Your task to perform on an android device: What's on my calendar tomorrow? Image 0: 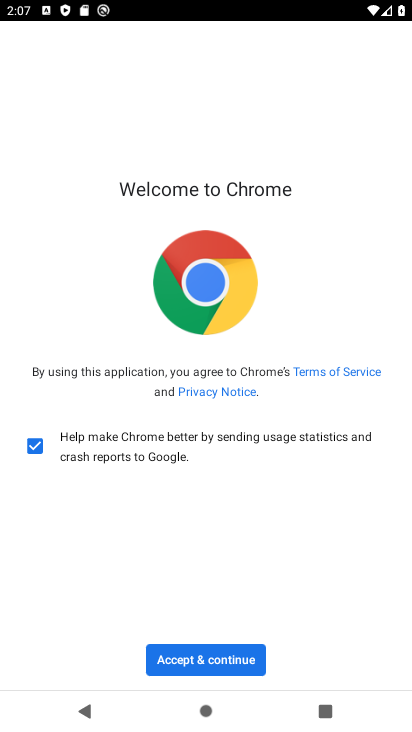
Step 0: click (231, 646)
Your task to perform on an android device: What's on my calendar tomorrow? Image 1: 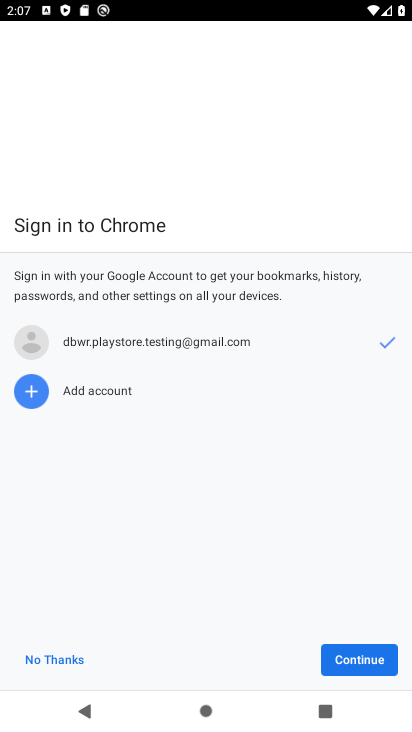
Step 1: click (340, 659)
Your task to perform on an android device: What's on my calendar tomorrow? Image 2: 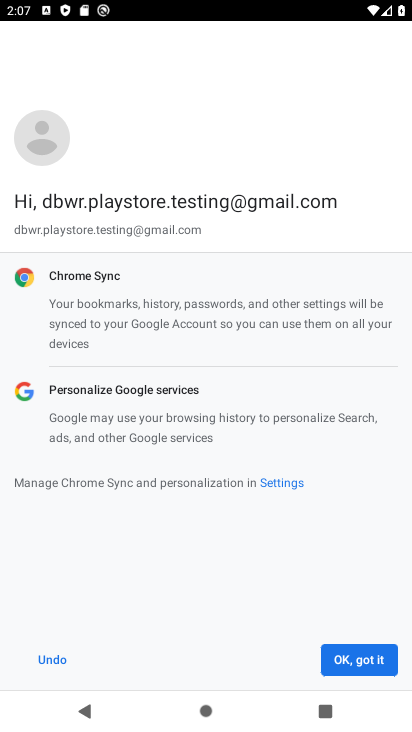
Step 2: click (340, 659)
Your task to perform on an android device: What's on my calendar tomorrow? Image 3: 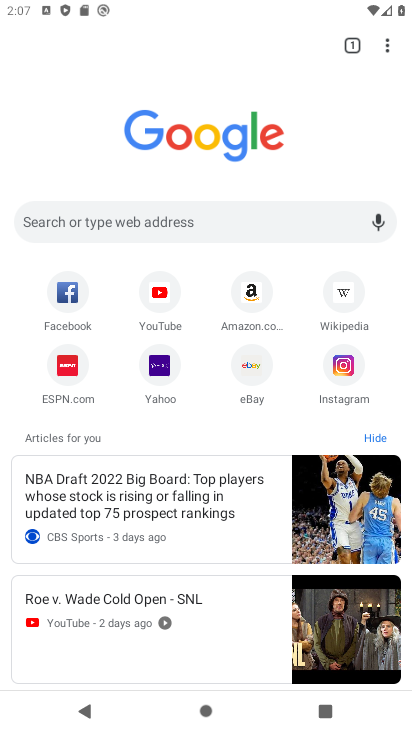
Step 3: press home button
Your task to perform on an android device: What's on my calendar tomorrow? Image 4: 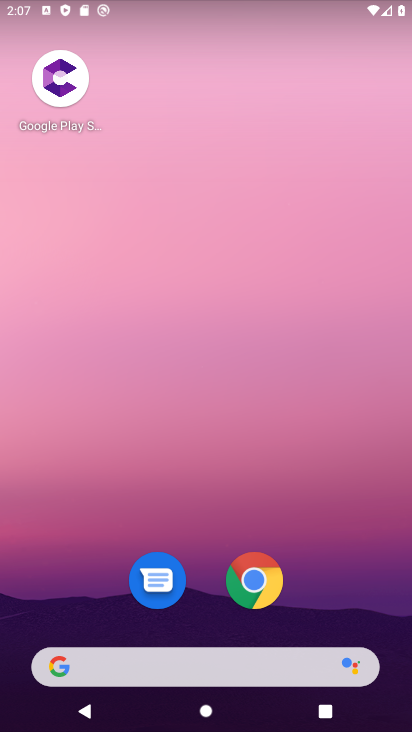
Step 4: drag from (327, 577) to (290, 96)
Your task to perform on an android device: What's on my calendar tomorrow? Image 5: 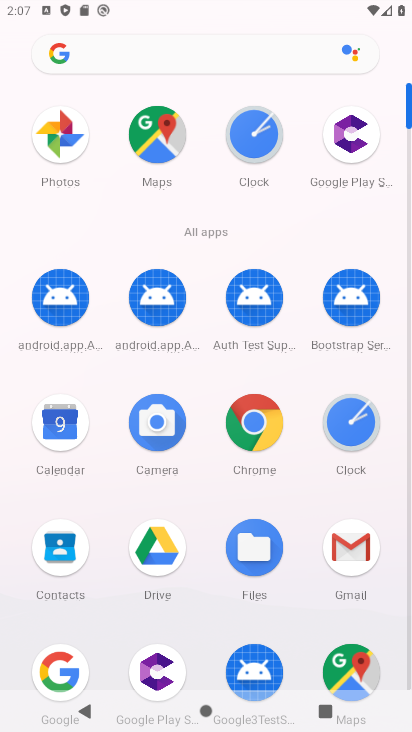
Step 5: click (60, 427)
Your task to perform on an android device: What's on my calendar tomorrow? Image 6: 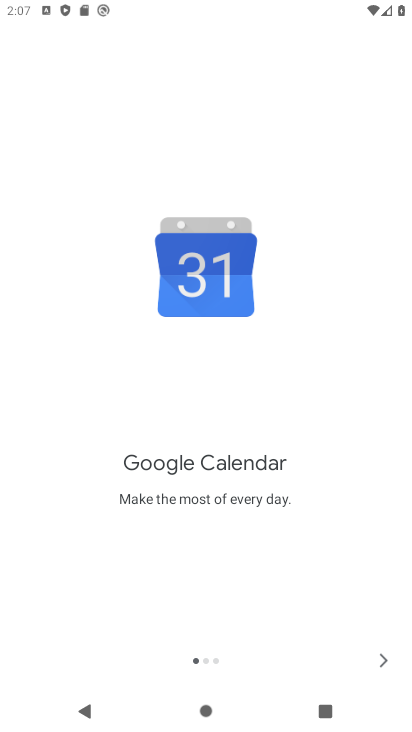
Step 6: click (385, 658)
Your task to perform on an android device: What's on my calendar tomorrow? Image 7: 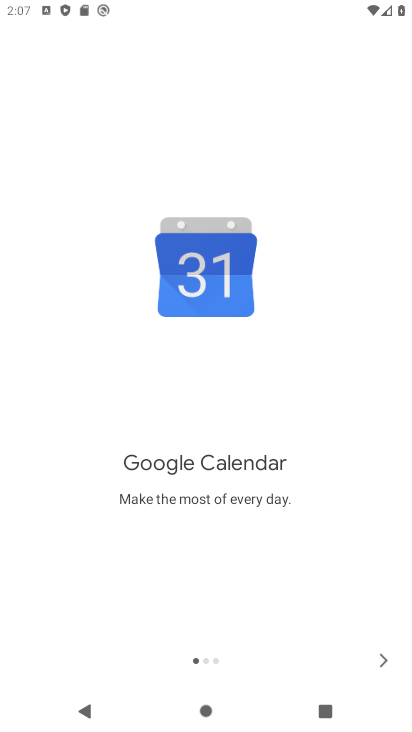
Step 7: click (385, 658)
Your task to perform on an android device: What's on my calendar tomorrow? Image 8: 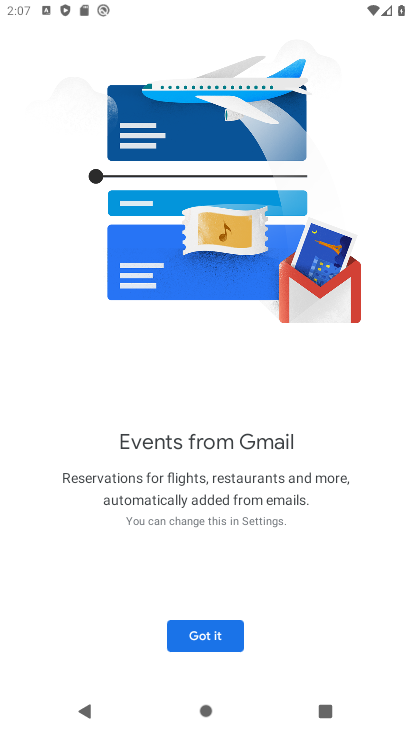
Step 8: click (221, 642)
Your task to perform on an android device: What's on my calendar tomorrow? Image 9: 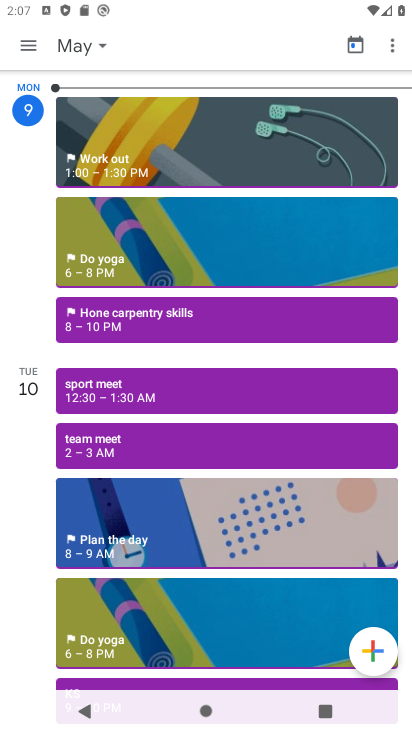
Step 9: click (92, 44)
Your task to perform on an android device: What's on my calendar tomorrow? Image 10: 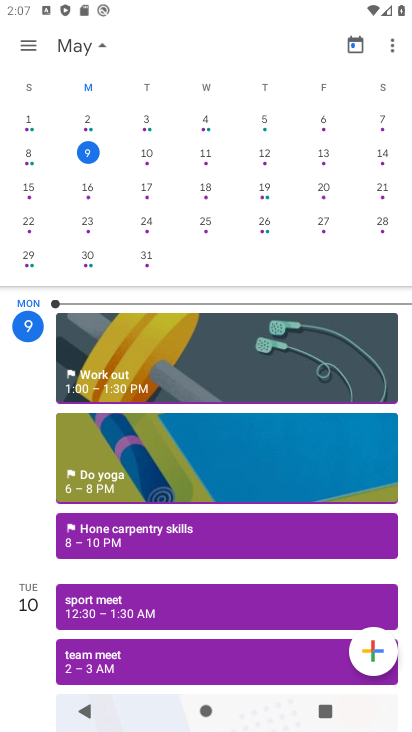
Step 10: click (144, 157)
Your task to perform on an android device: What's on my calendar tomorrow? Image 11: 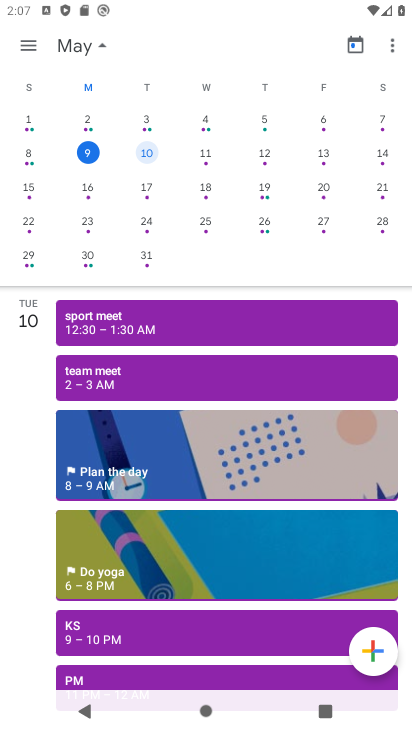
Step 11: task complete